Your task to perform on an android device: install app "Upside-Cash back on gas & food" Image 0: 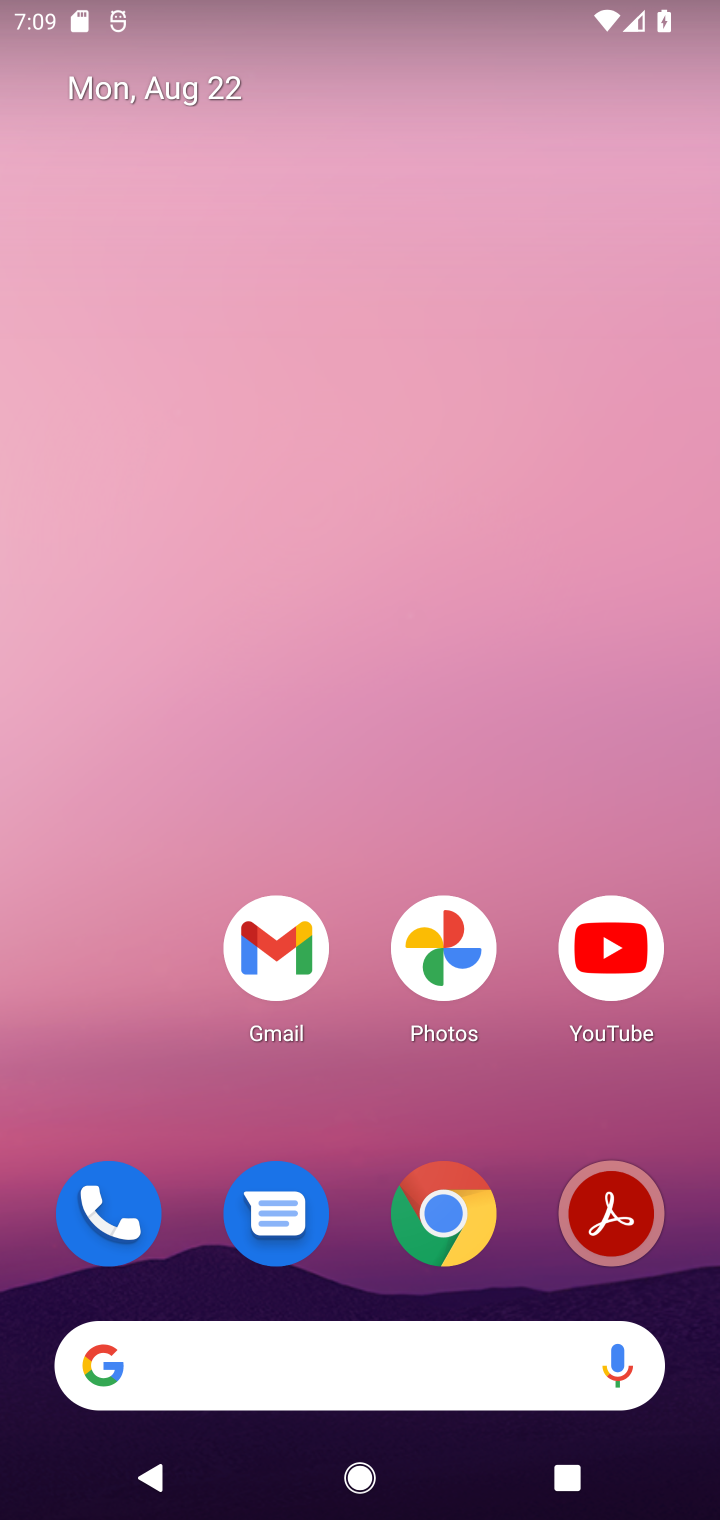
Step 0: press home button
Your task to perform on an android device: install app "Upside-Cash back on gas & food" Image 1: 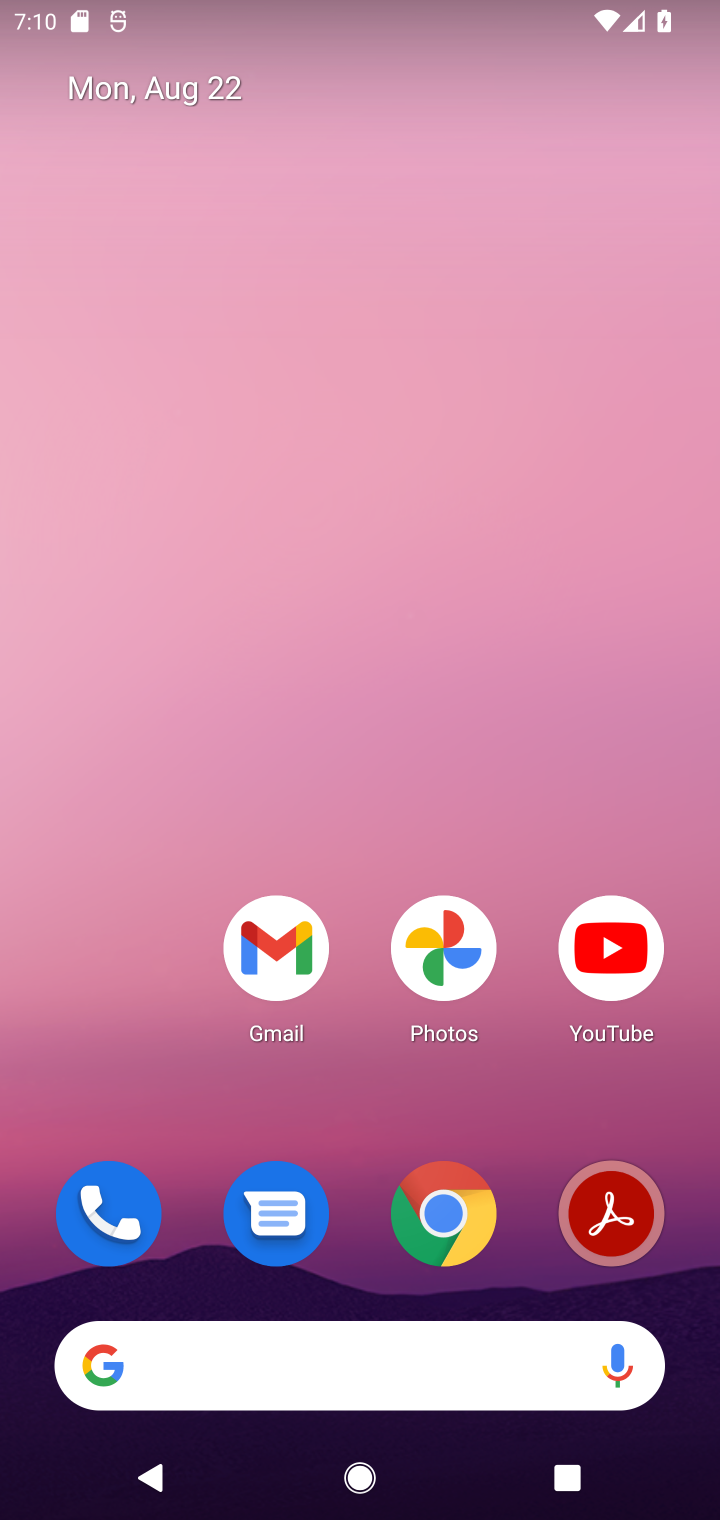
Step 1: press home button
Your task to perform on an android device: install app "Upside-Cash back on gas & food" Image 2: 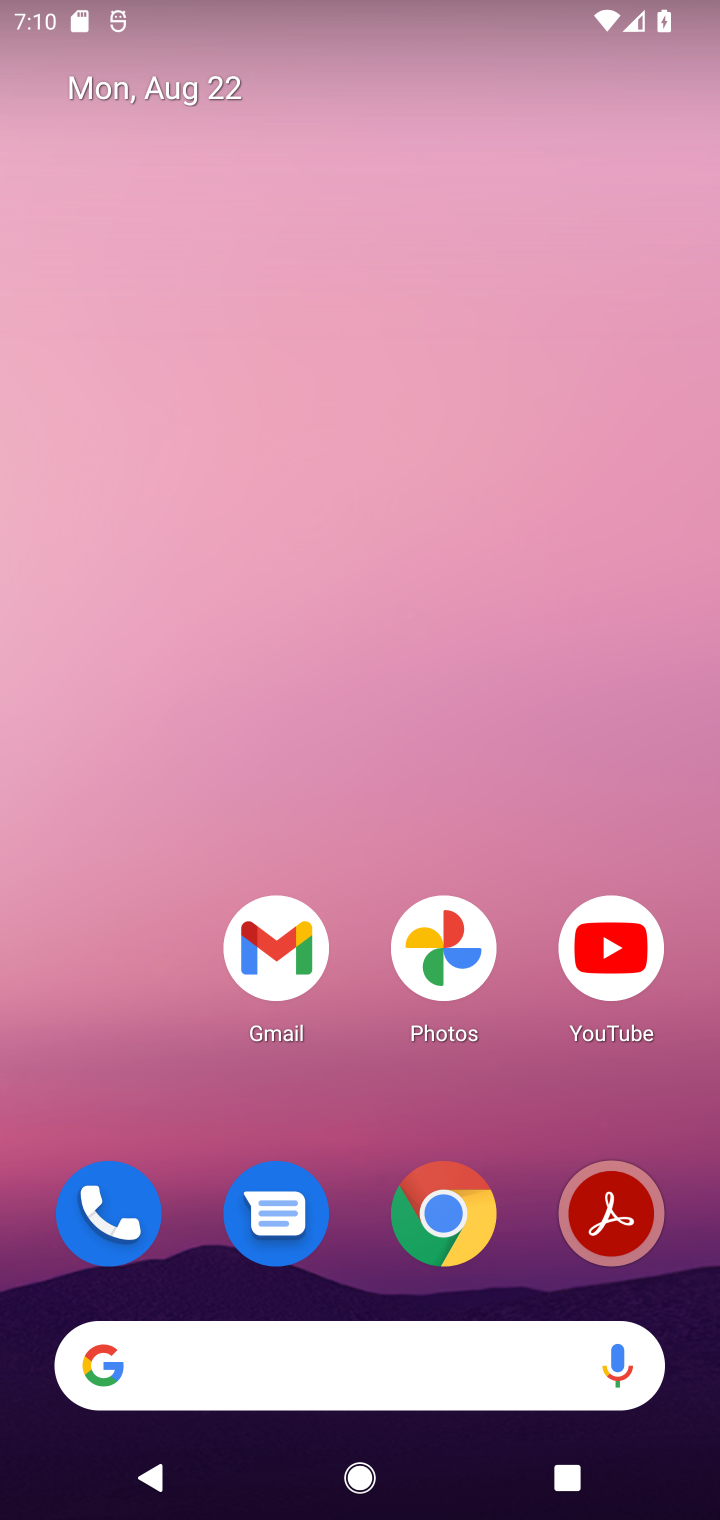
Step 2: drag from (368, 1138) to (483, 75)
Your task to perform on an android device: install app "Upside-Cash back on gas & food" Image 3: 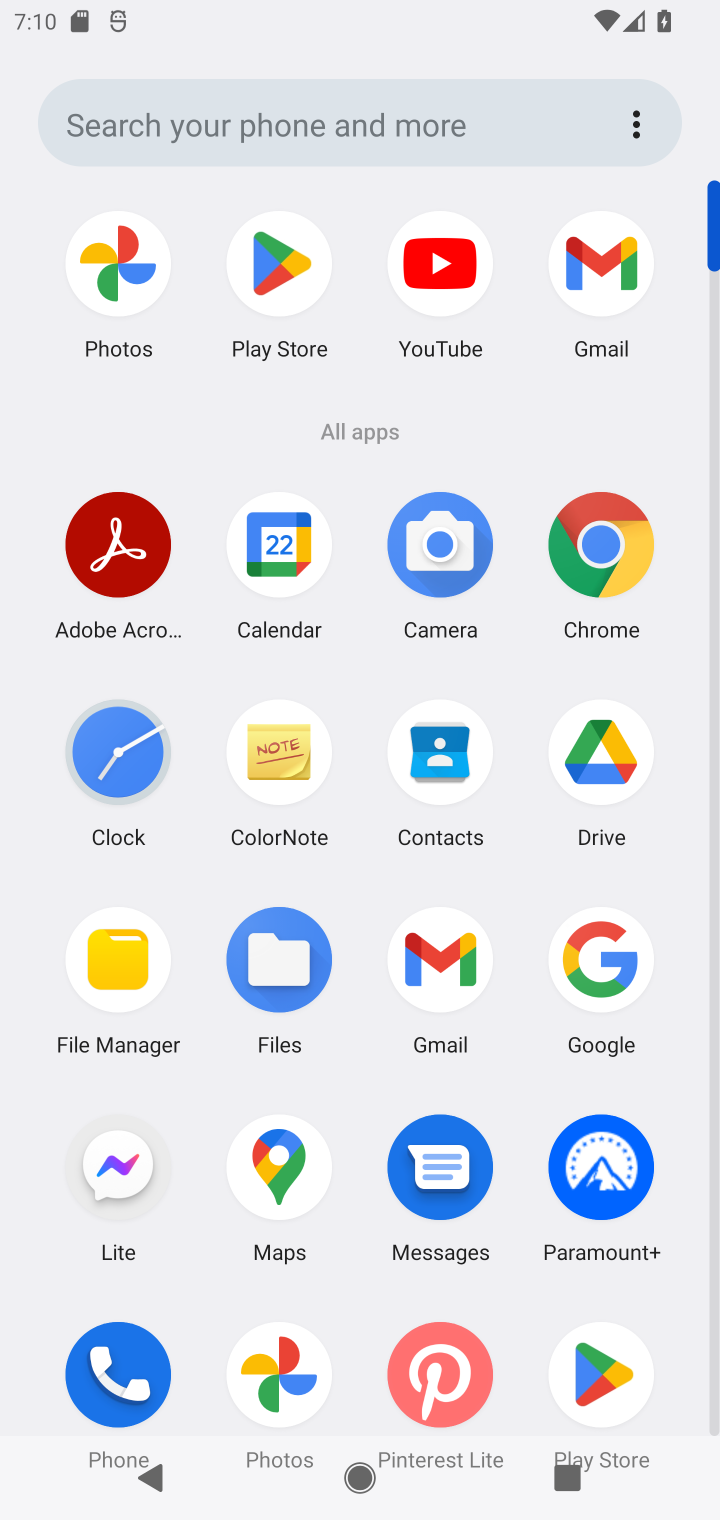
Step 3: click (589, 1357)
Your task to perform on an android device: install app "Upside-Cash back on gas & food" Image 4: 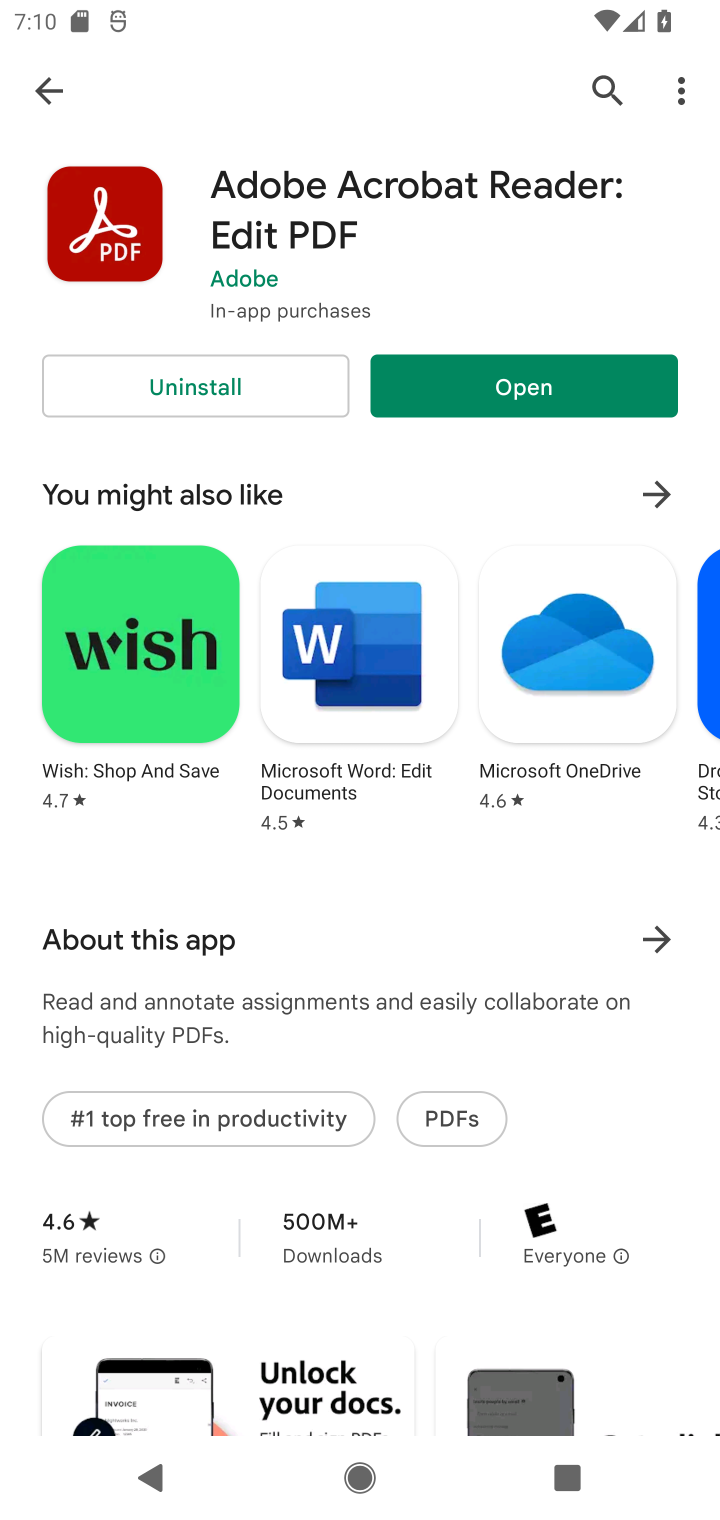
Step 4: click (593, 95)
Your task to perform on an android device: install app "Upside-Cash back on gas & food" Image 5: 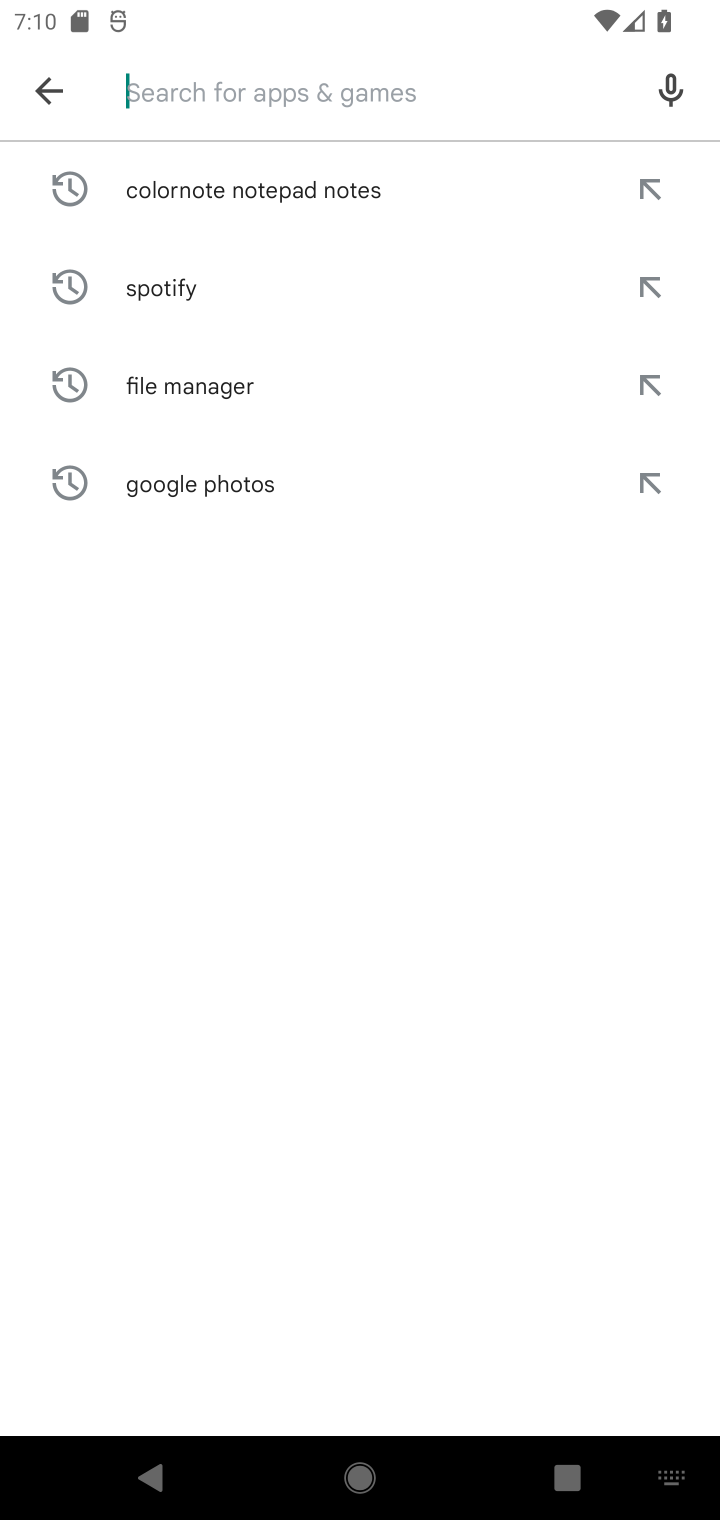
Step 5: type "Upside-Cash back on gas & food"
Your task to perform on an android device: install app "Upside-Cash back on gas & food" Image 6: 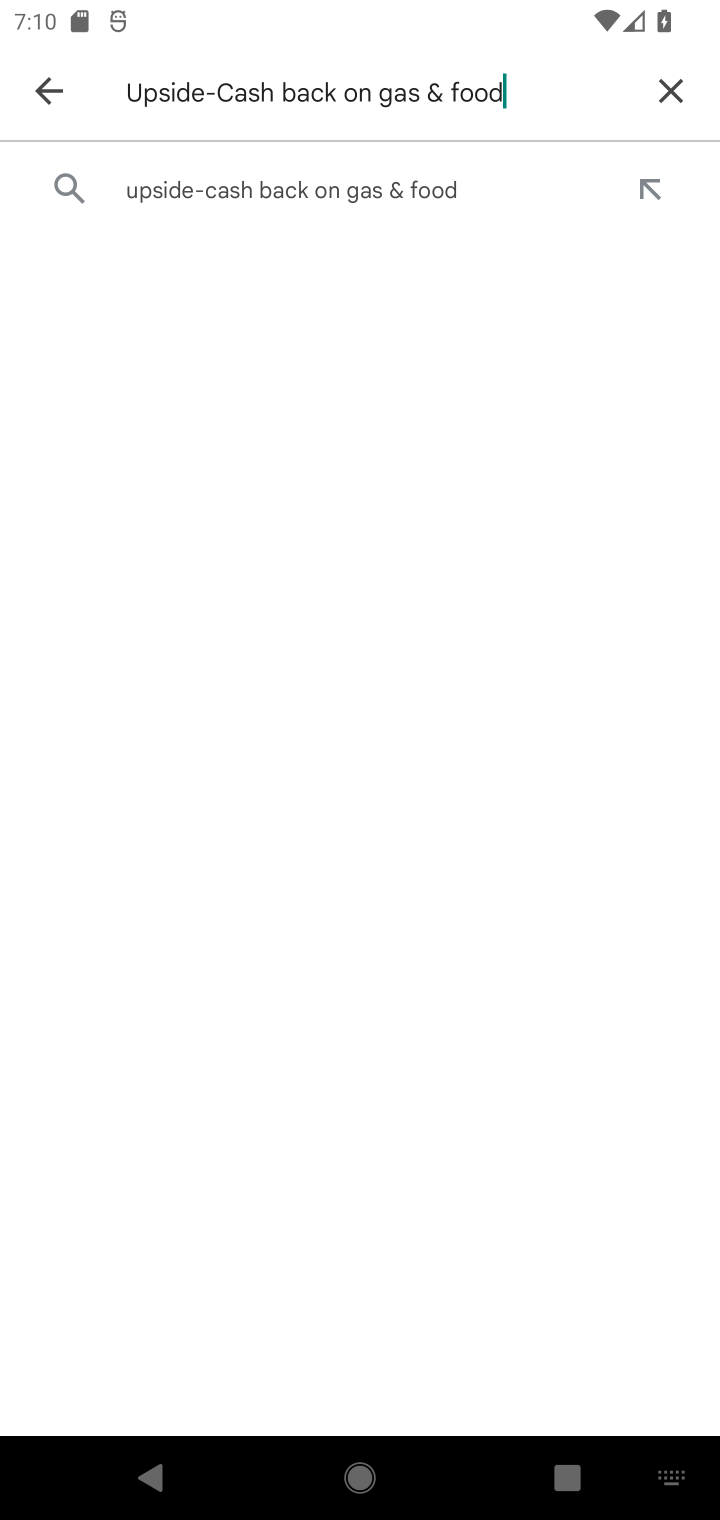
Step 6: click (257, 185)
Your task to perform on an android device: install app "Upside-Cash back on gas & food" Image 7: 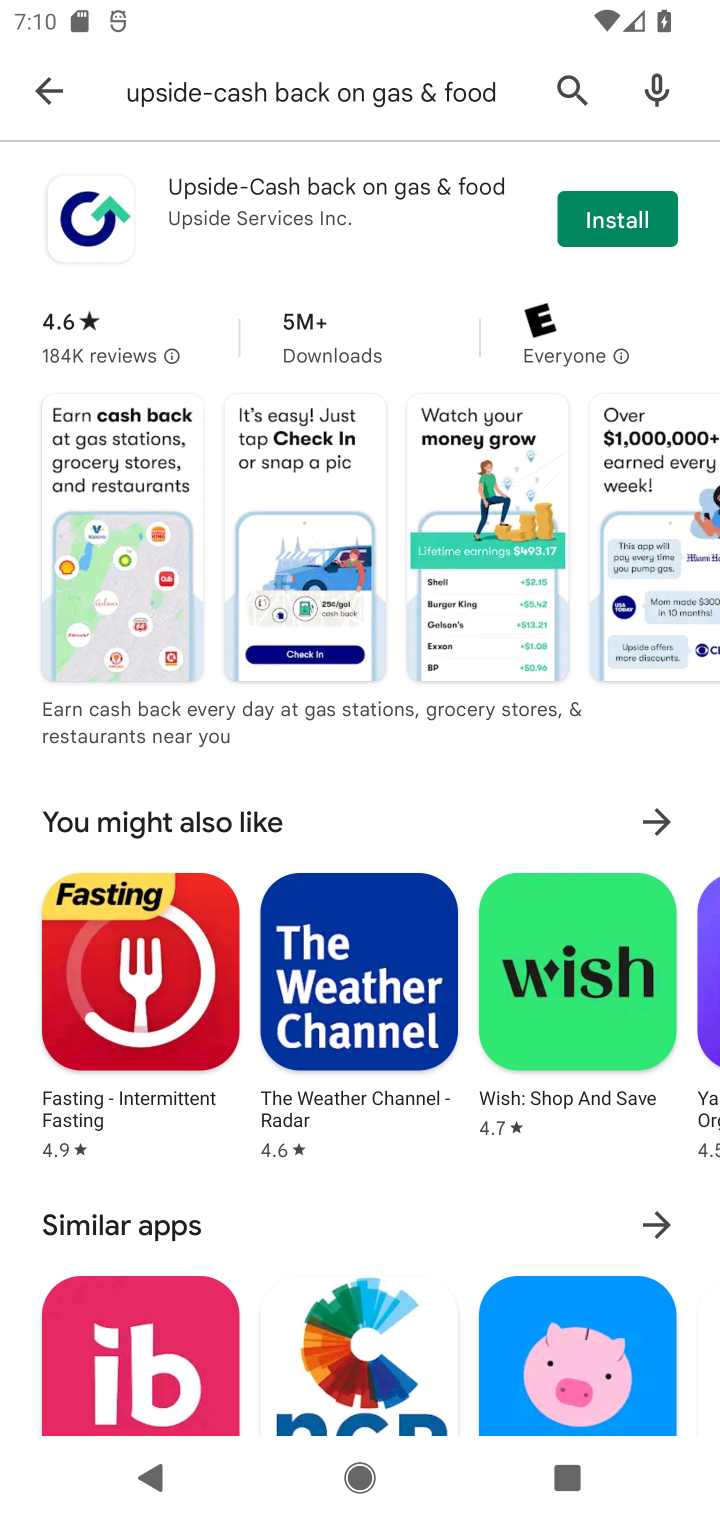
Step 7: click (613, 214)
Your task to perform on an android device: install app "Upside-Cash back on gas & food" Image 8: 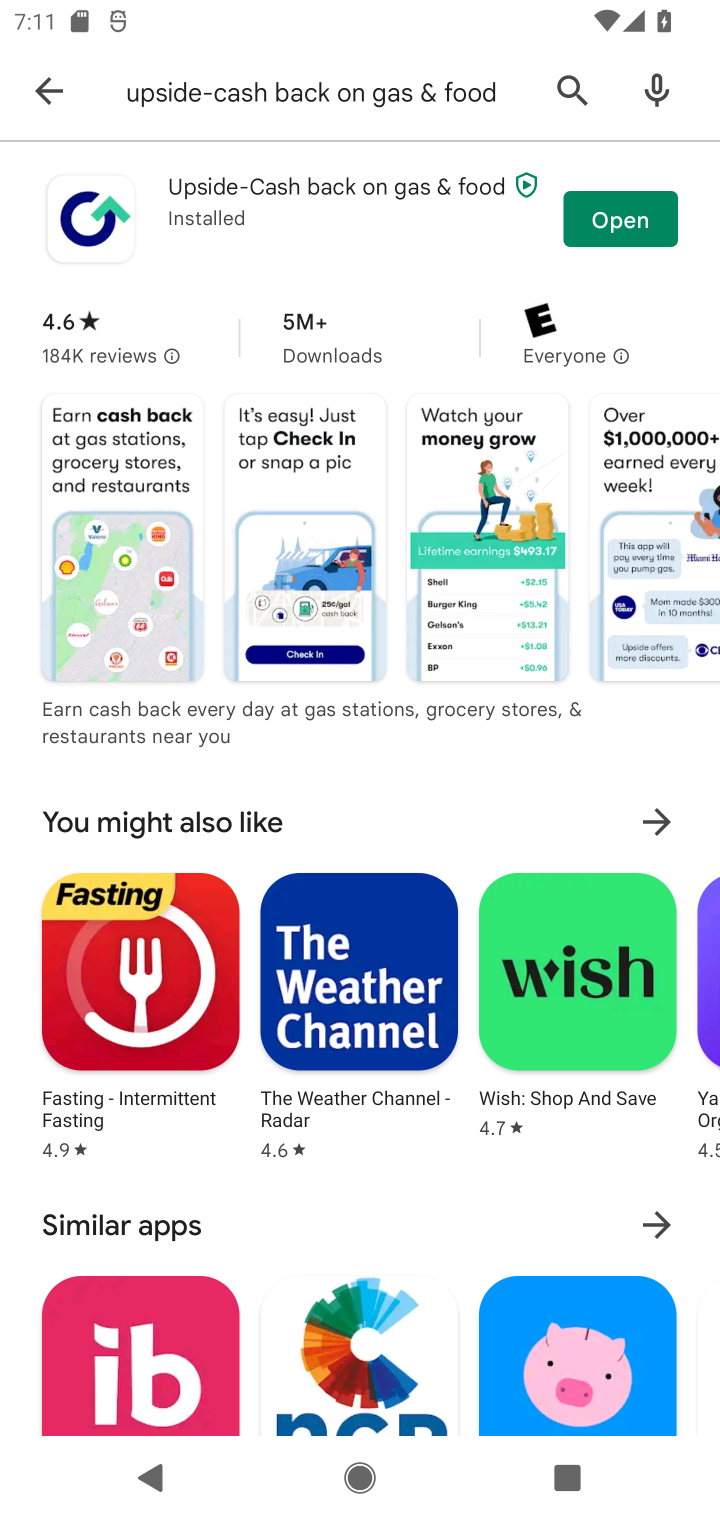
Step 8: click (632, 230)
Your task to perform on an android device: install app "Upside-Cash back on gas & food" Image 9: 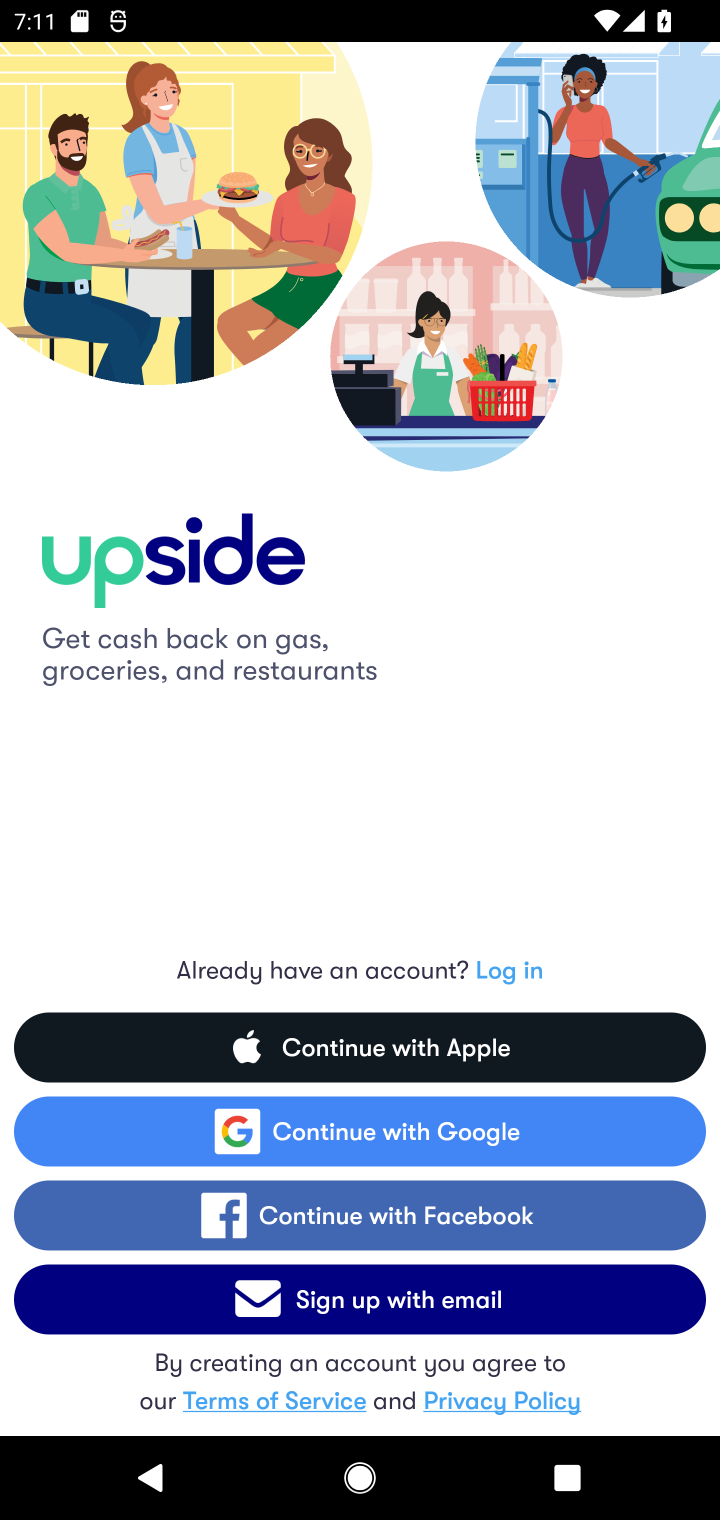
Step 9: click (392, 1130)
Your task to perform on an android device: install app "Upside-Cash back on gas & food" Image 10: 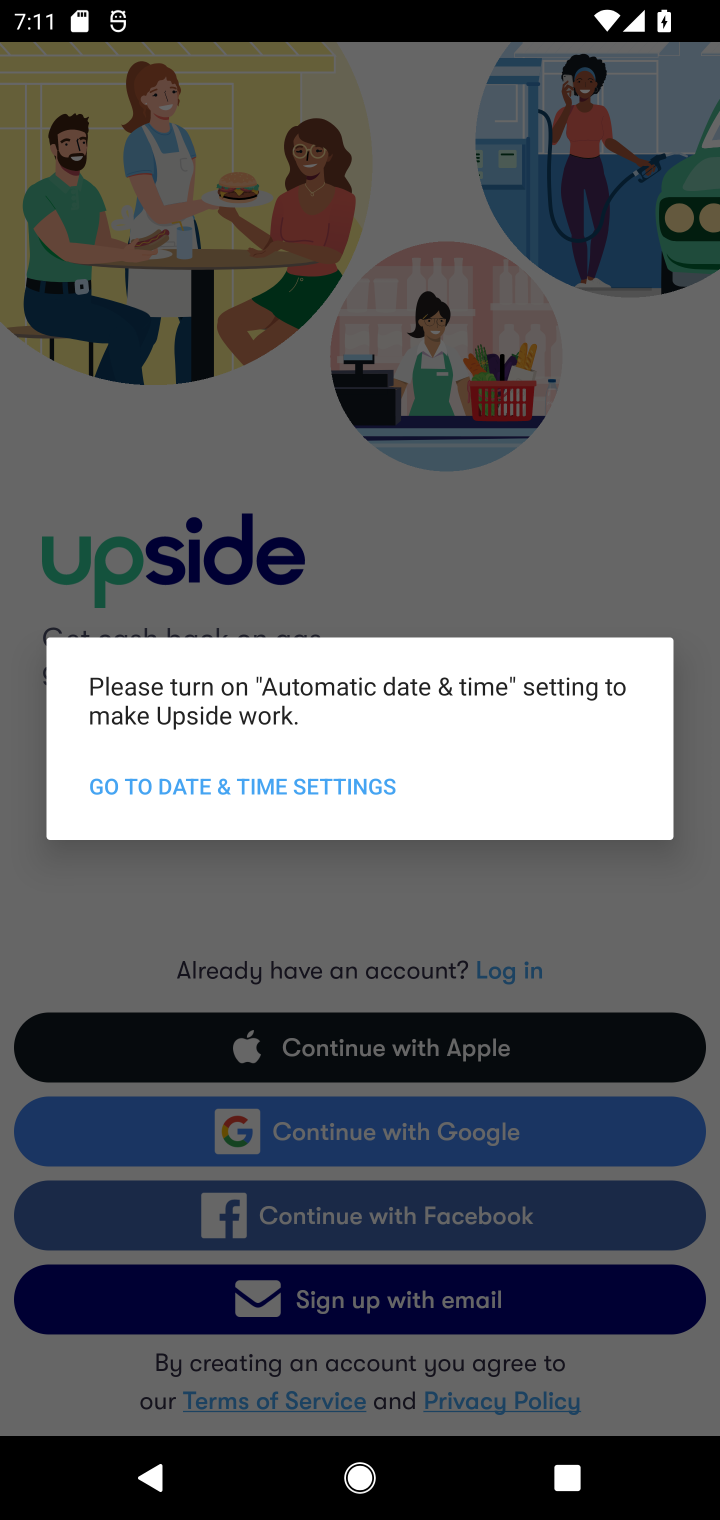
Step 10: click (213, 797)
Your task to perform on an android device: install app "Upside-Cash back on gas & food" Image 11: 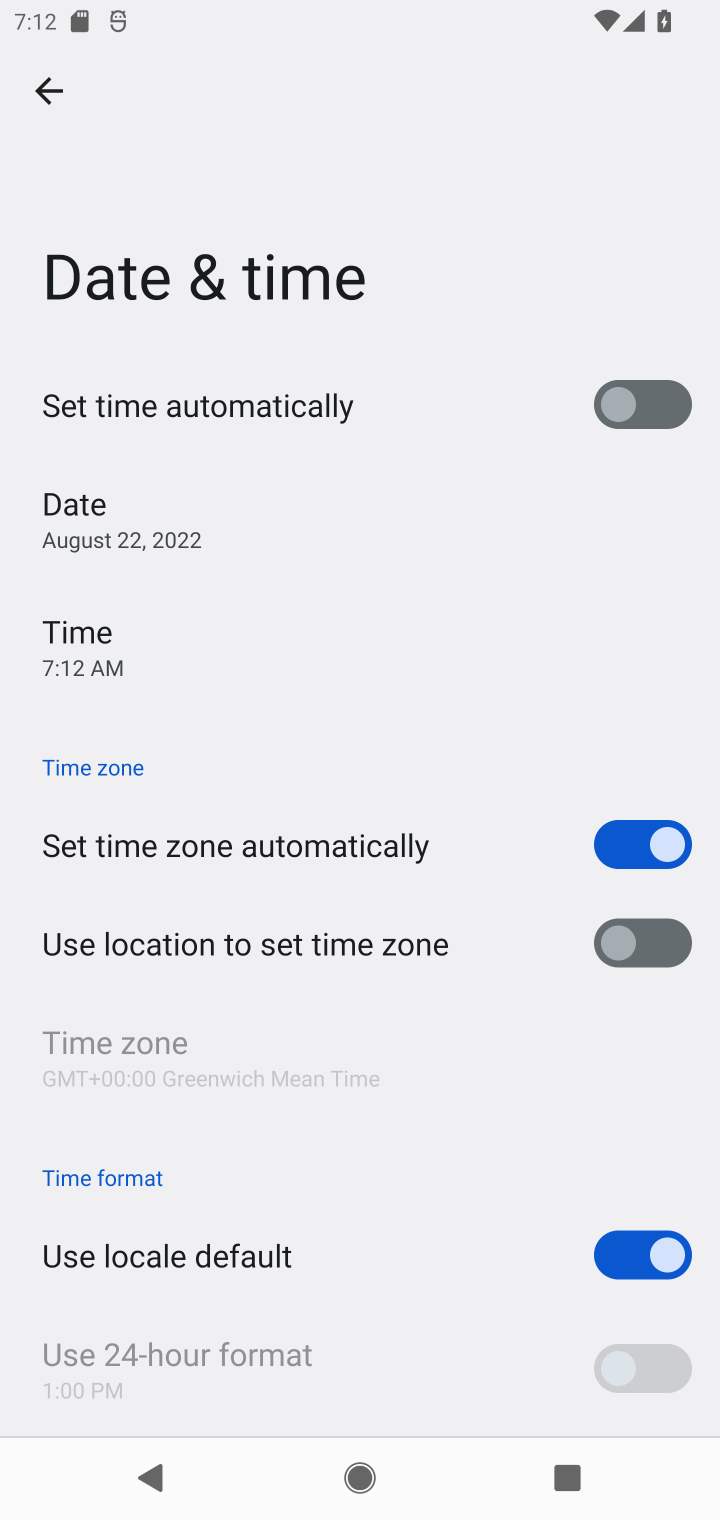
Step 11: click (652, 400)
Your task to perform on an android device: install app "Upside-Cash back on gas & food" Image 12: 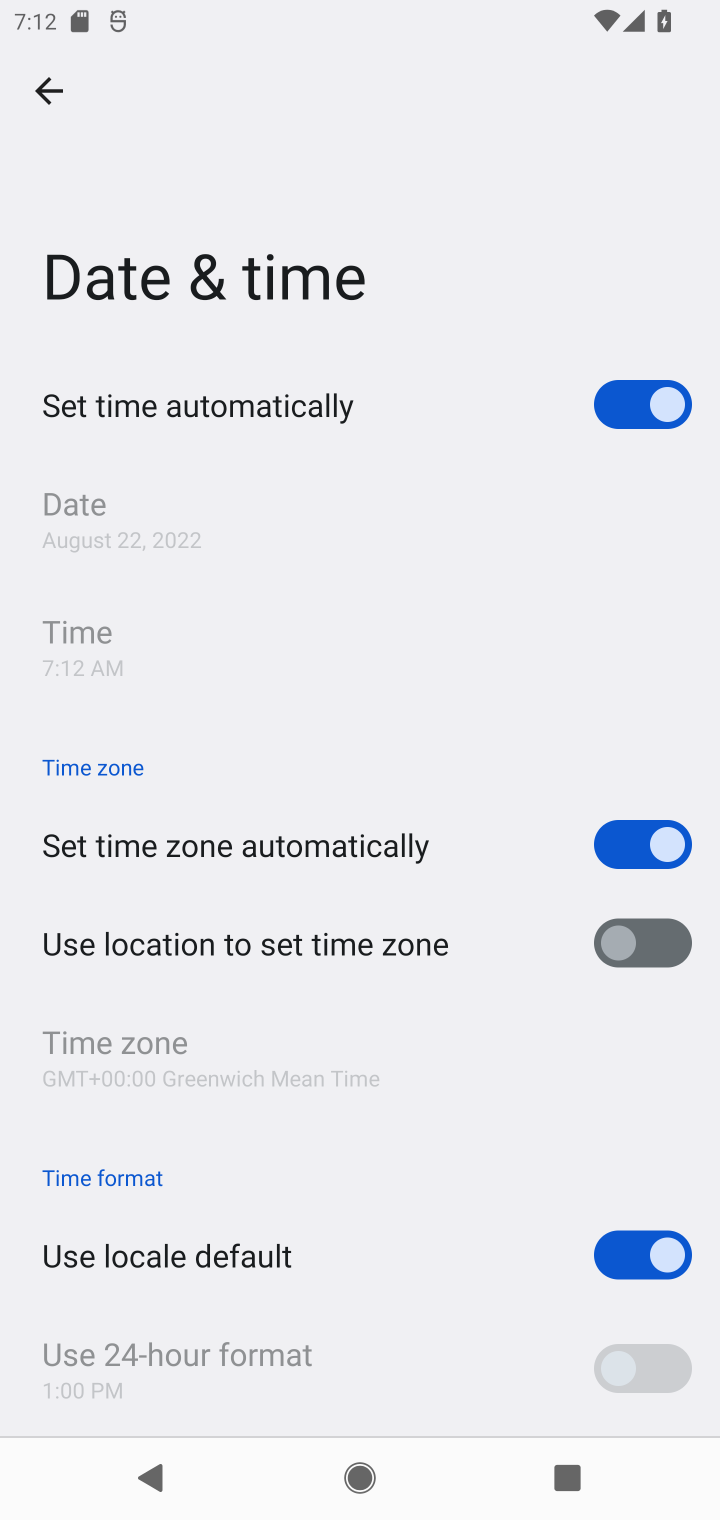
Step 12: click (31, 90)
Your task to perform on an android device: install app "Upside-Cash back on gas & food" Image 13: 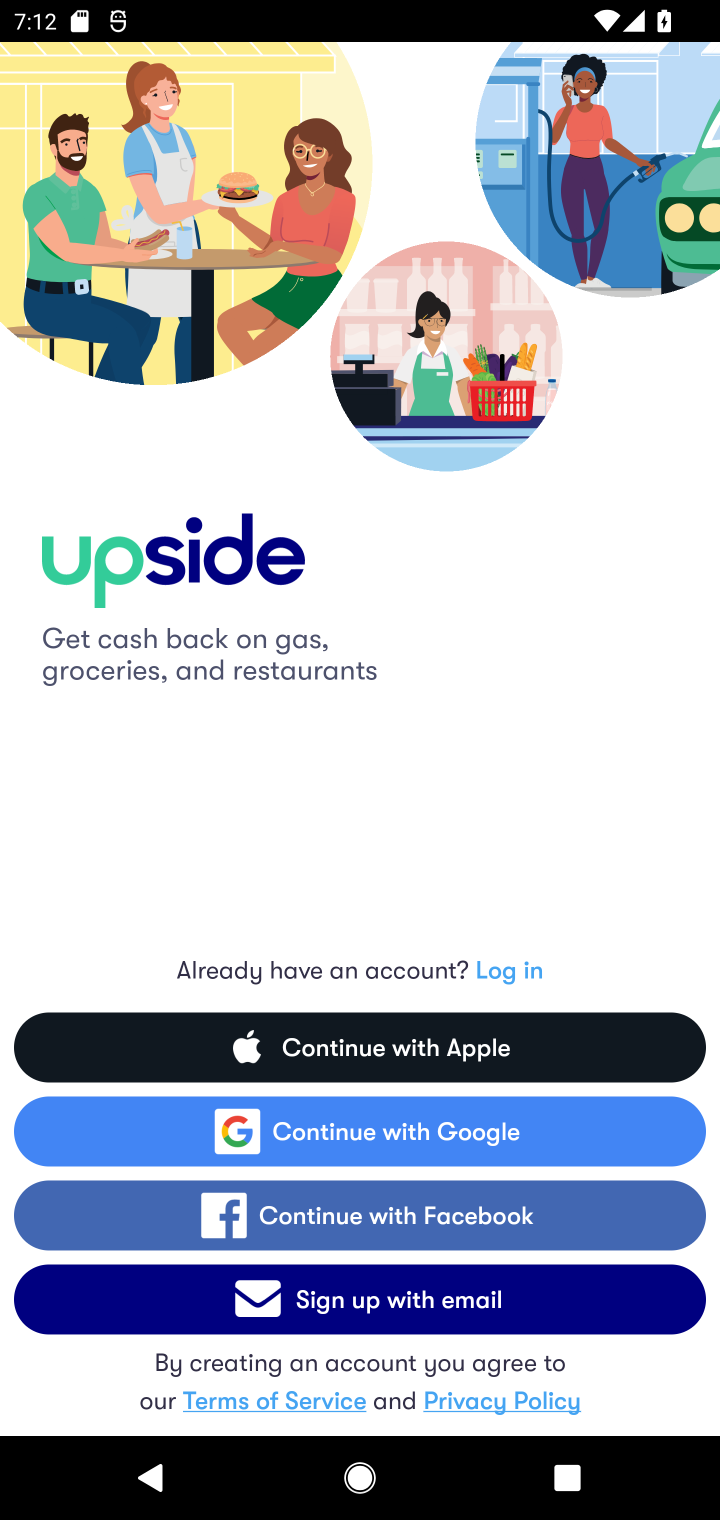
Step 13: click (381, 1131)
Your task to perform on an android device: install app "Upside-Cash back on gas & food" Image 14: 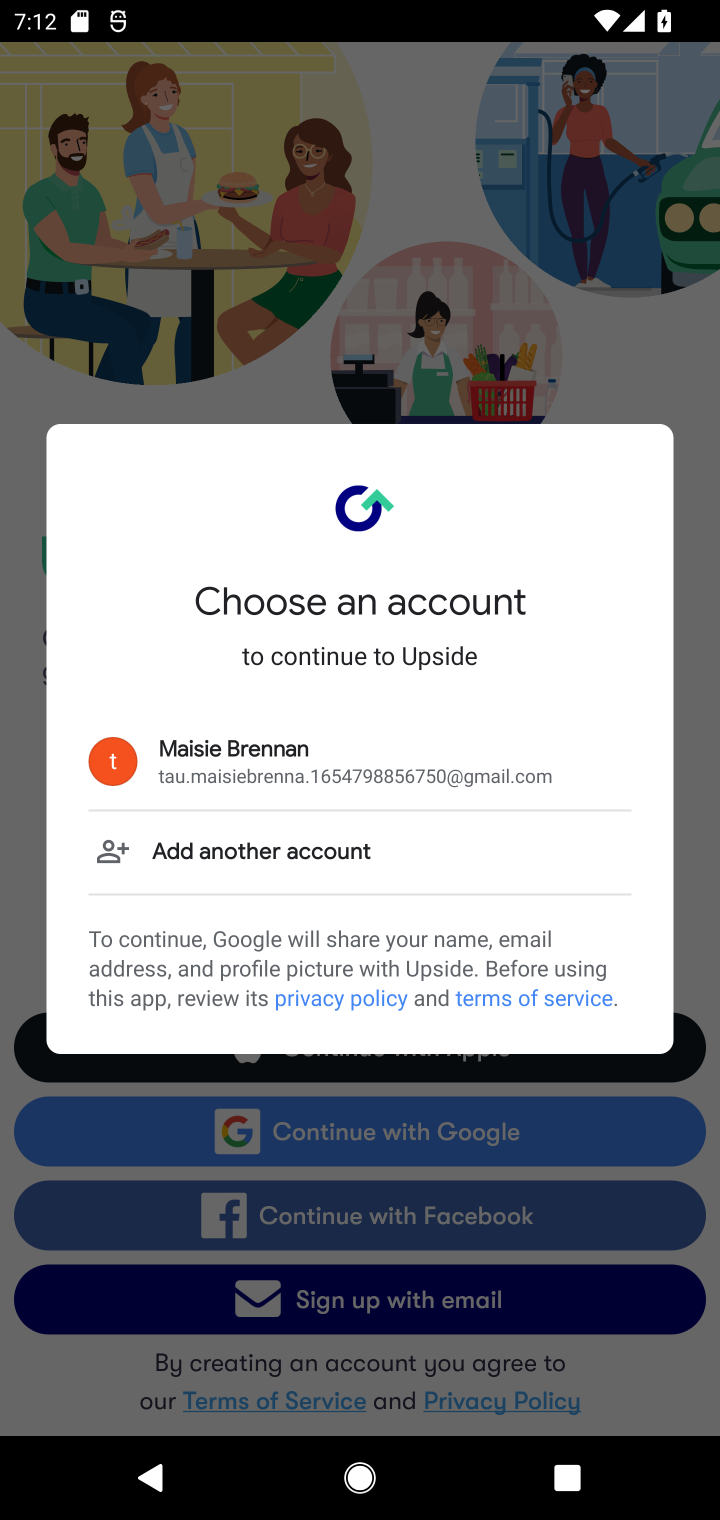
Step 14: click (241, 753)
Your task to perform on an android device: install app "Upside-Cash back on gas & food" Image 15: 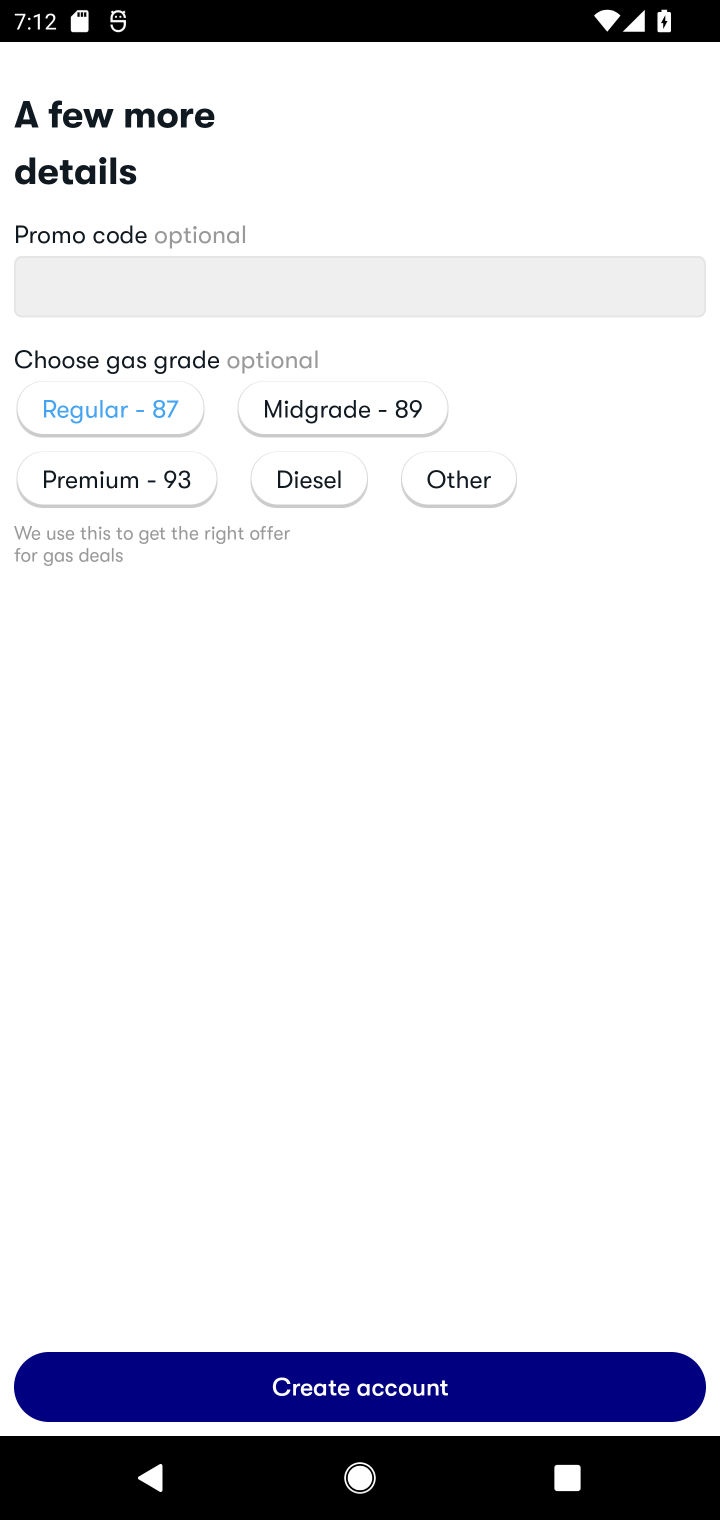
Step 15: task complete